Your task to perform on an android device: clear history in the chrome app Image 0: 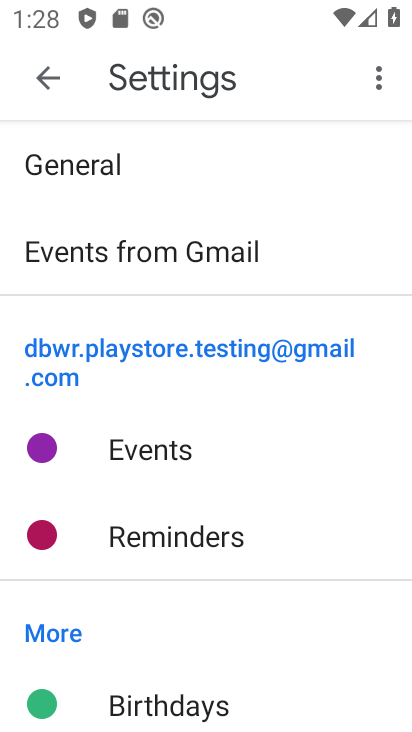
Step 0: press back button
Your task to perform on an android device: clear history in the chrome app Image 1: 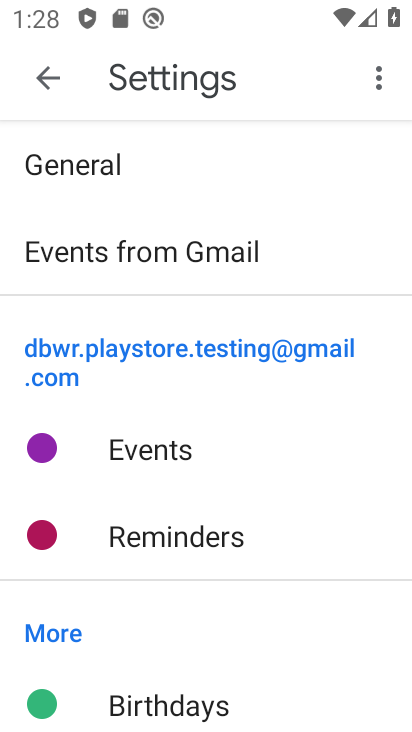
Step 1: press back button
Your task to perform on an android device: clear history in the chrome app Image 2: 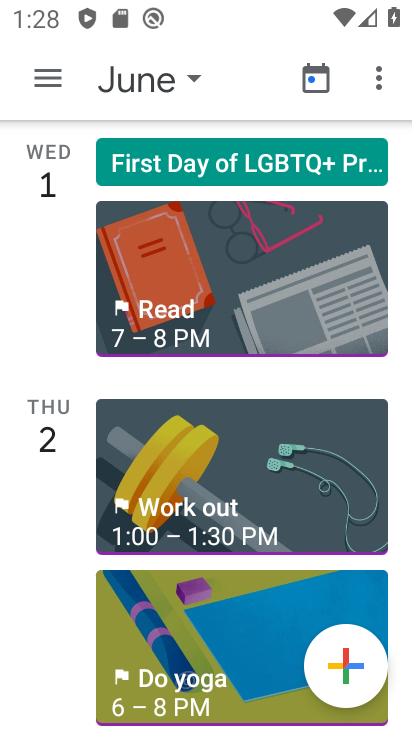
Step 2: press back button
Your task to perform on an android device: clear history in the chrome app Image 3: 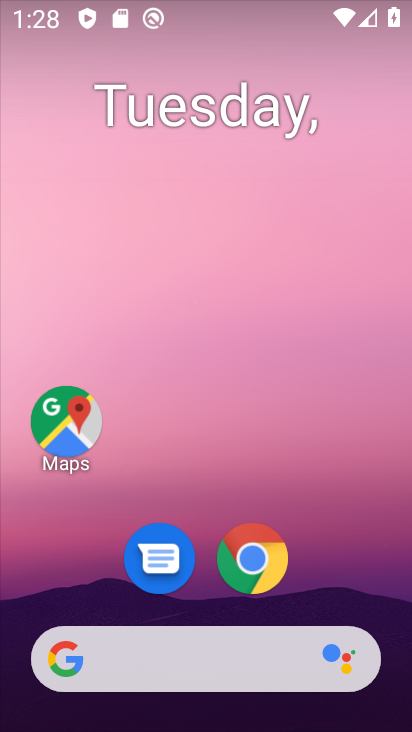
Step 3: click (256, 564)
Your task to perform on an android device: clear history in the chrome app Image 4: 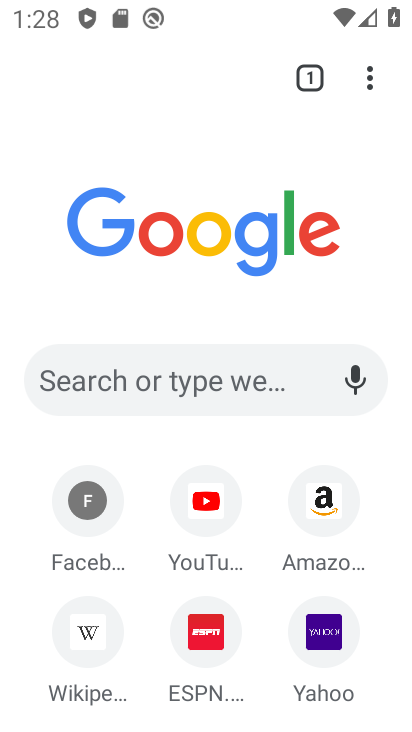
Step 4: task complete